Your task to perform on an android device: turn notification dots off Image 0: 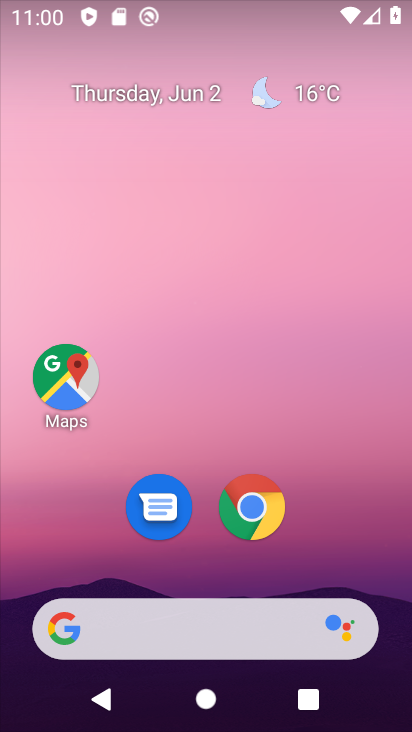
Step 0: drag from (387, 629) to (296, 27)
Your task to perform on an android device: turn notification dots off Image 1: 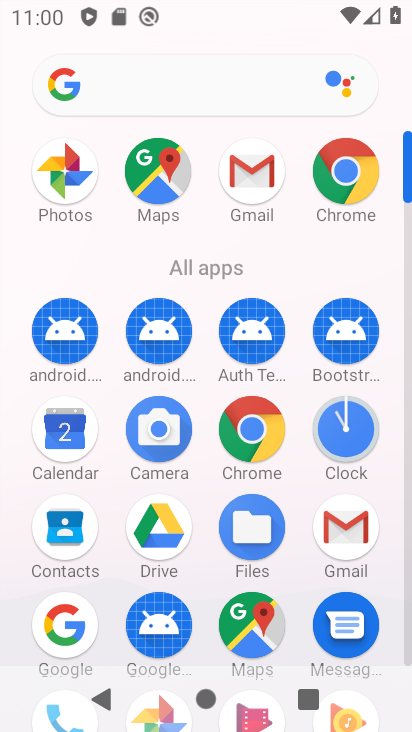
Step 1: drag from (200, 658) to (231, 197)
Your task to perform on an android device: turn notification dots off Image 2: 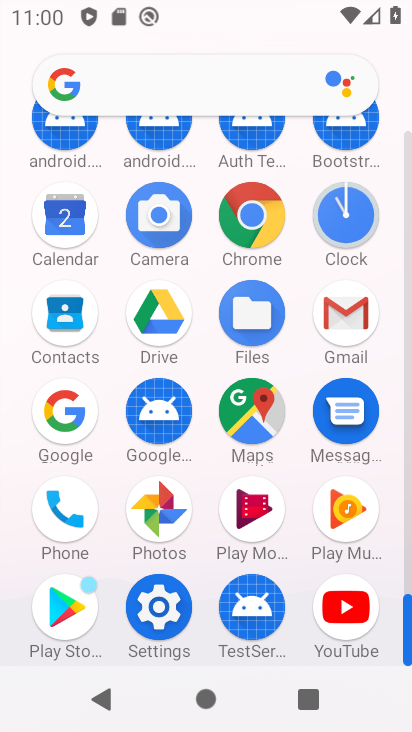
Step 2: click (162, 628)
Your task to perform on an android device: turn notification dots off Image 3: 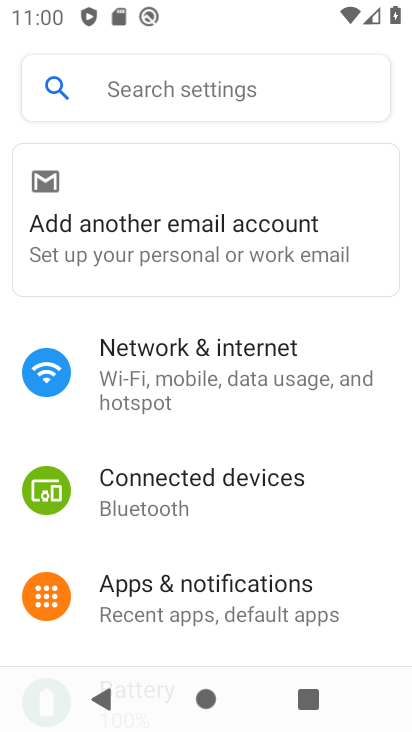
Step 3: click (236, 587)
Your task to perform on an android device: turn notification dots off Image 4: 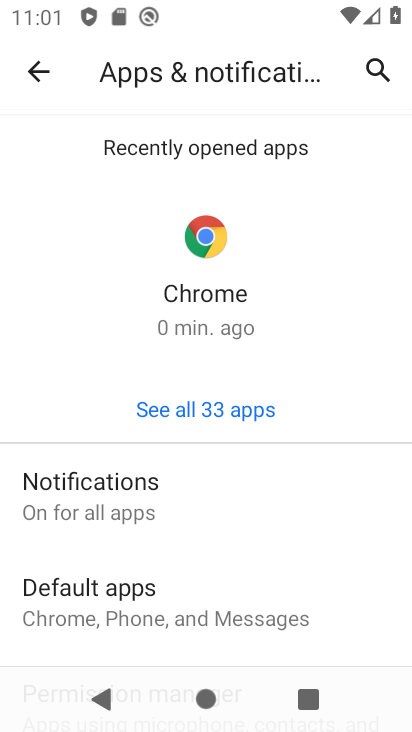
Step 4: click (182, 500)
Your task to perform on an android device: turn notification dots off Image 5: 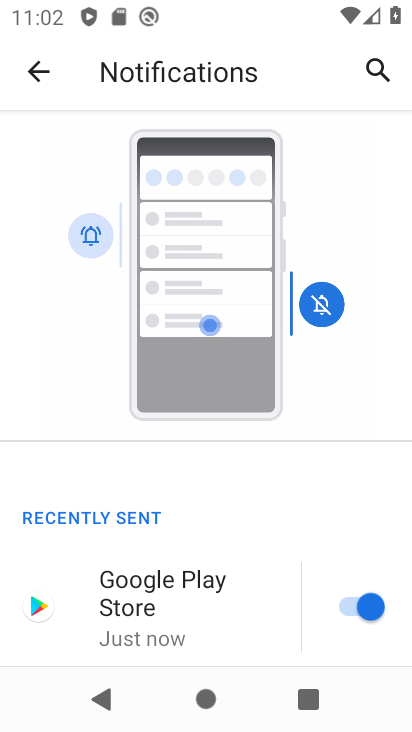
Step 5: drag from (234, 634) to (199, 48)
Your task to perform on an android device: turn notification dots off Image 6: 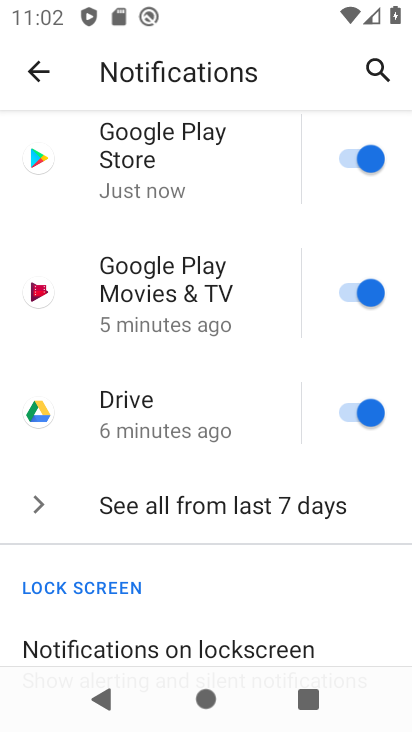
Step 6: drag from (196, 637) to (203, 51)
Your task to perform on an android device: turn notification dots off Image 7: 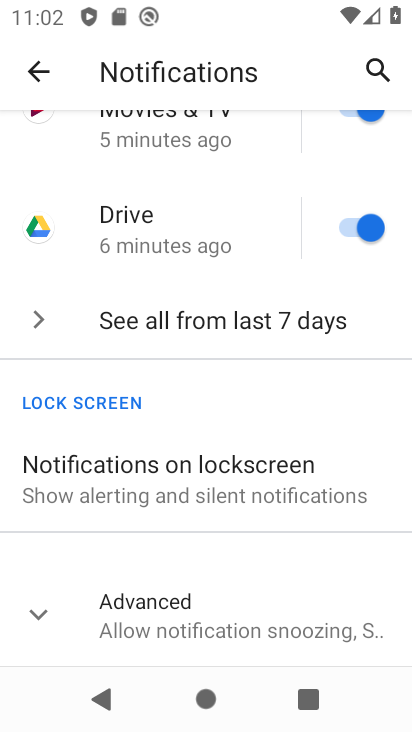
Step 7: click (148, 604)
Your task to perform on an android device: turn notification dots off Image 8: 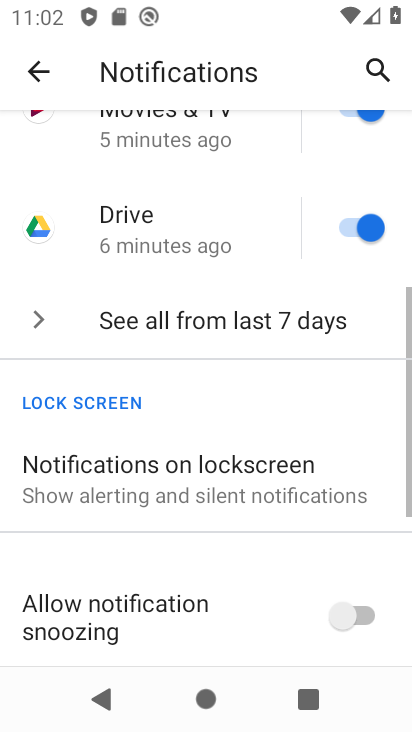
Step 8: drag from (184, 624) to (256, 248)
Your task to perform on an android device: turn notification dots off Image 9: 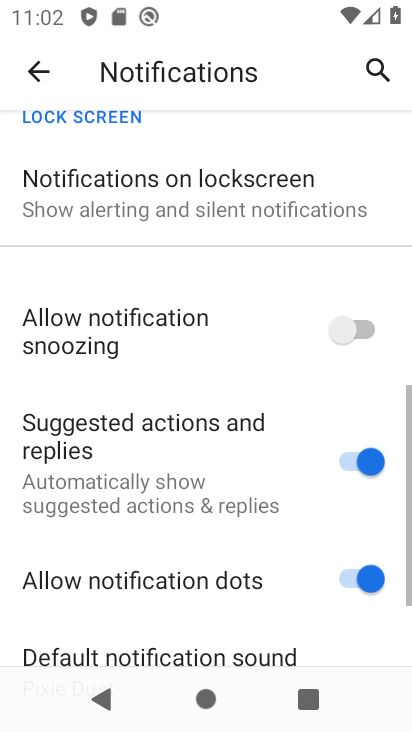
Step 9: click (236, 140)
Your task to perform on an android device: turn notification dots off Image 10: 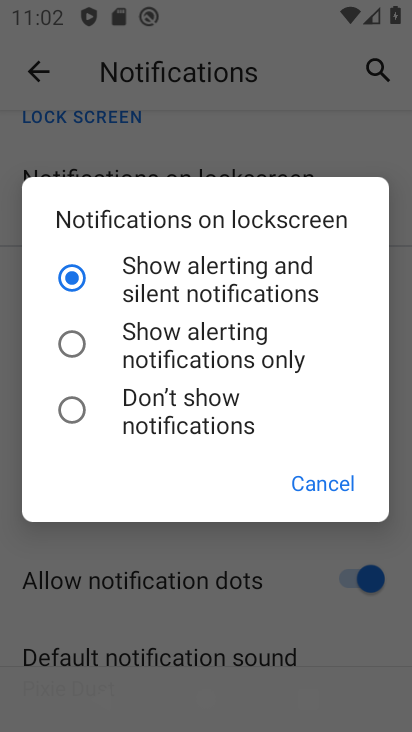
Step 10: click (317, 486)
Your task to perform on an android device: turn notification dots off Image 11: 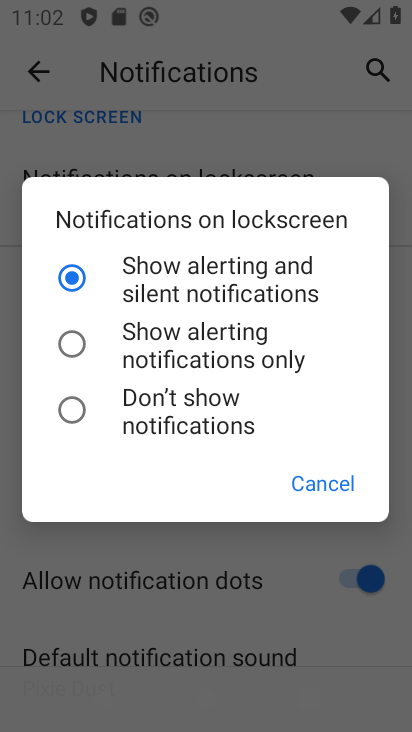
Step 11: click (341, 592)
Your task to perform on an android device: turn notification dots off Image 12: 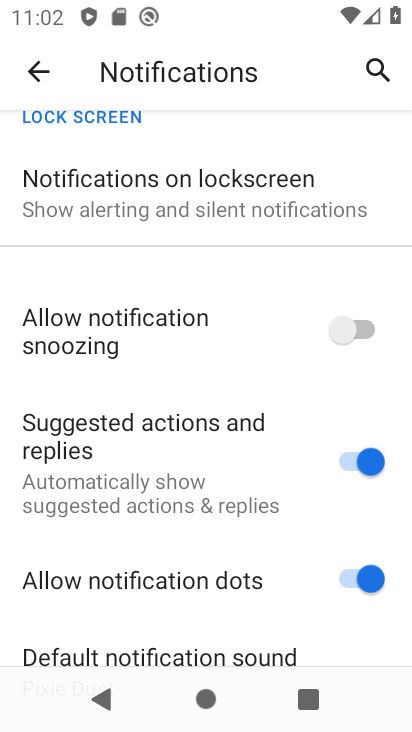
Step 12: click (329, 580)
Your task to perform on an android device: turn notification dots off Image 13: 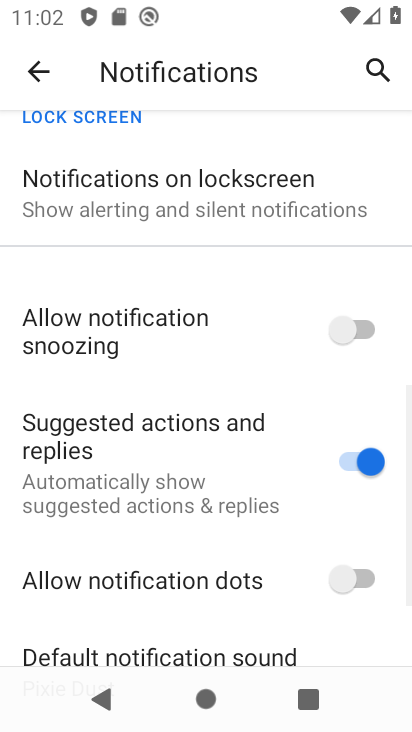
Step 13: task complete